Your task to perform on an android device: Go to Yahoo.com Image 0: 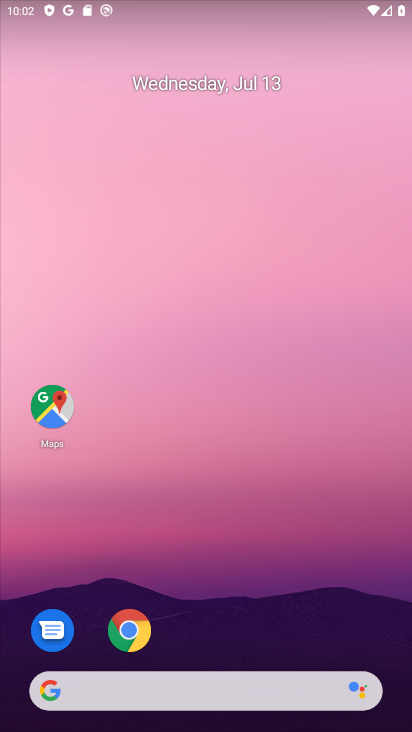
Step 0: click (132, 630)
Your task to perform on an android device: Go to Yahoo.com Image 1: 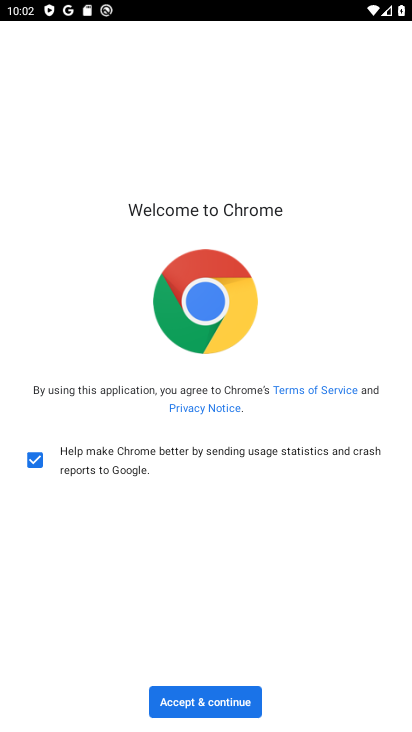
Step 1: click (212, 710)
Your task to perform on an android device: Go to Yahoo.com Image 2: 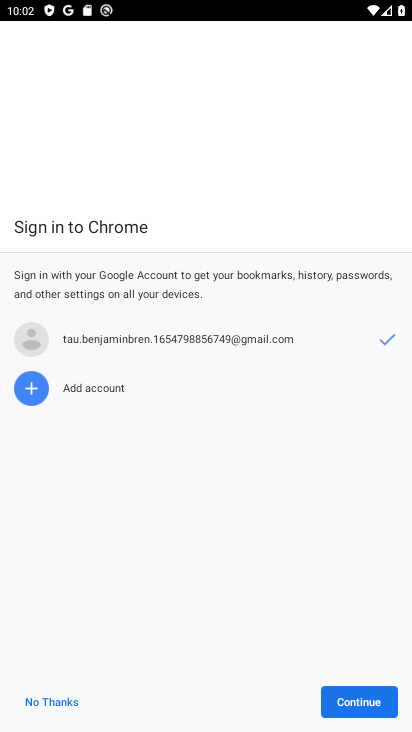
Step 2: click (382, 702)
Your task to perform on an android device: Go to Yahoo.com Image 3: 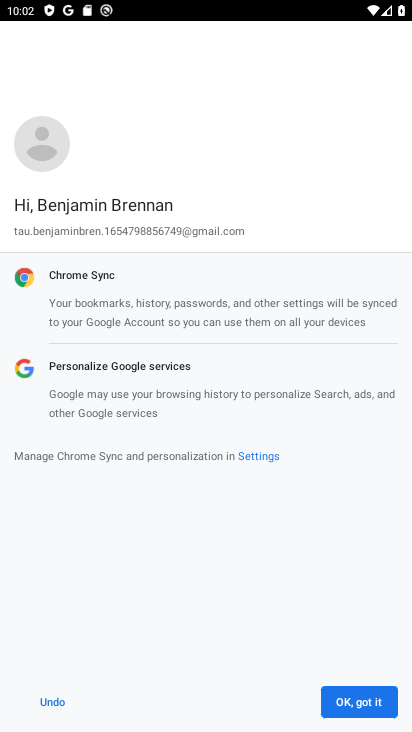
Step 3: click (379, 708)
Your task to perform on an android device: Go to Yahoo.com Image 4: 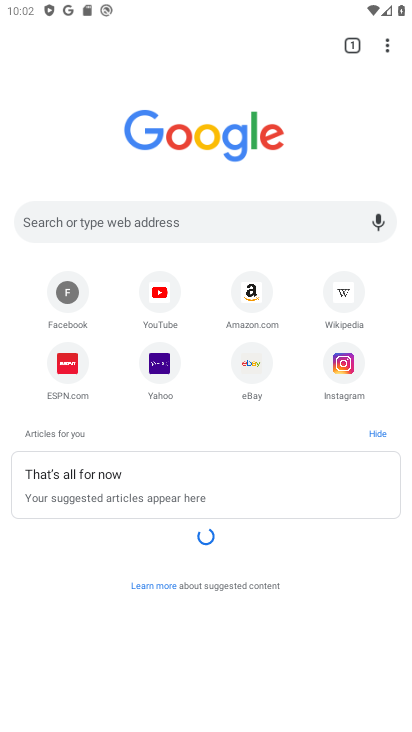
Step 4: click (163, 364)
Your task to perform on an android device: Go to Yahoo.com Image 5: 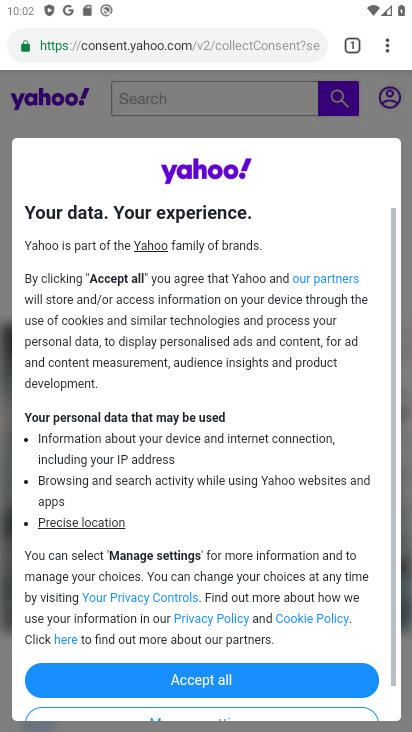
Step 5: task complete